Your task to perform on an android device: Is it going to rain today? Image 0: 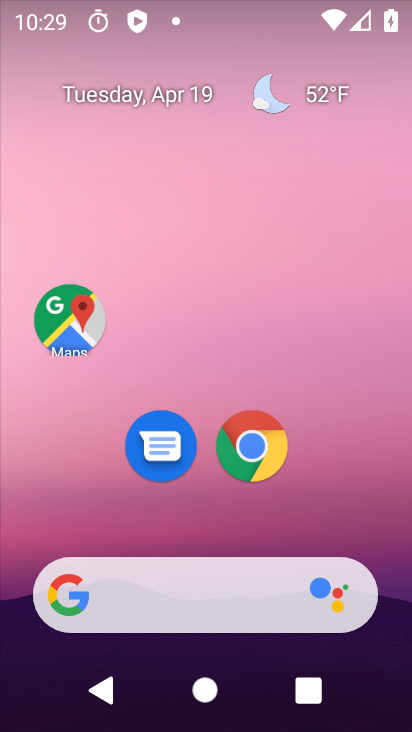
Step 0: drag from (3, 235) to (343, 194)
Your task to perform on an android device: Is it going to rain today? Image 1: 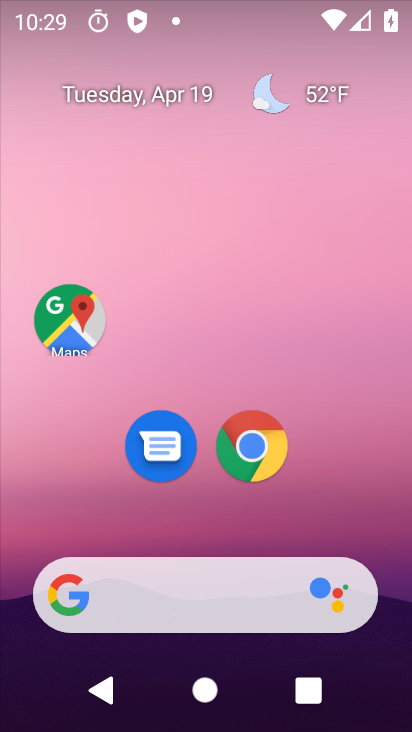
Step 1: click (311, 87)
Your task to perform on an android device: Is it going to rain today? Image 2: 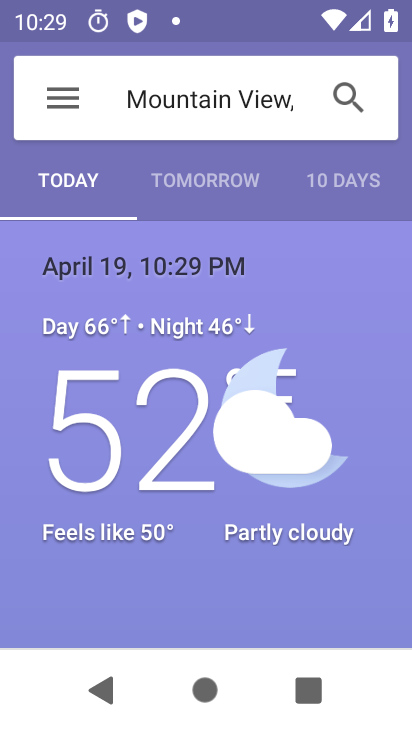
Step 2: task complete